Your task to perform on an android device: change notifications settings Image 0: 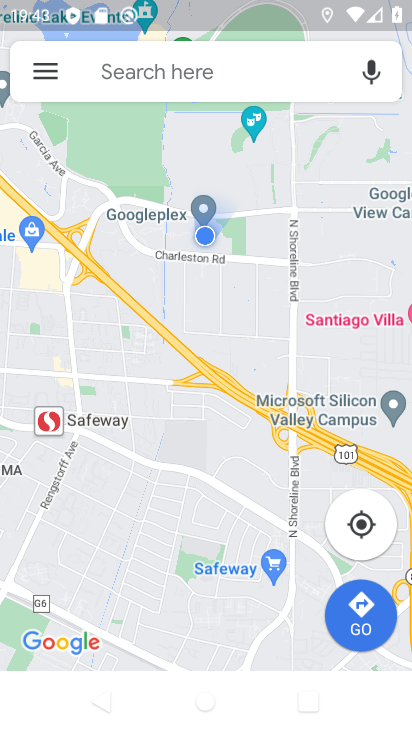
Step 0: press home button
Your task to perform on an android device: change notifications settings Image 1: 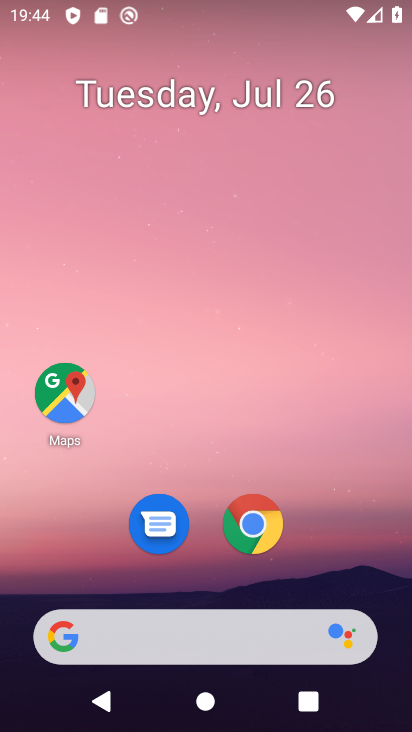
Step 1: drag from (157, 632) to (299, 55)
Your task to perform on an android device: change notifications settings Image 2: 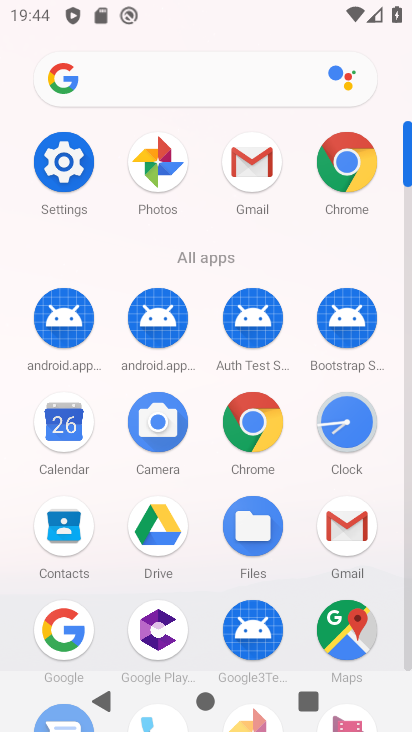
Step 2: click (71, 166)
Your task to perform on an android device: change notifications settings Image 3: 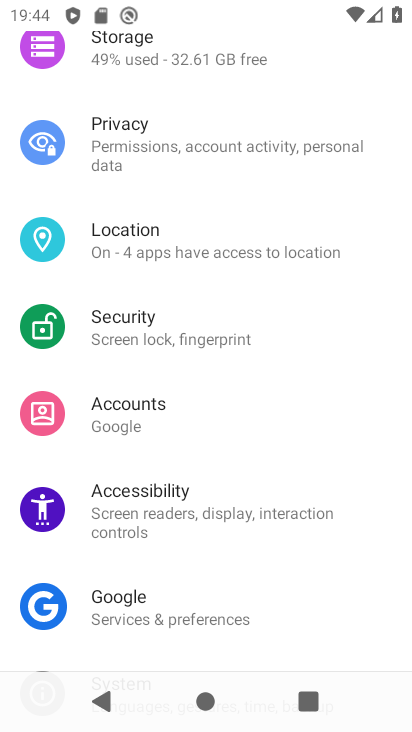
Step 3: drag from (314, 98) to (263, 539)
Your task to perform on an android device: change notifications settings Image 4: 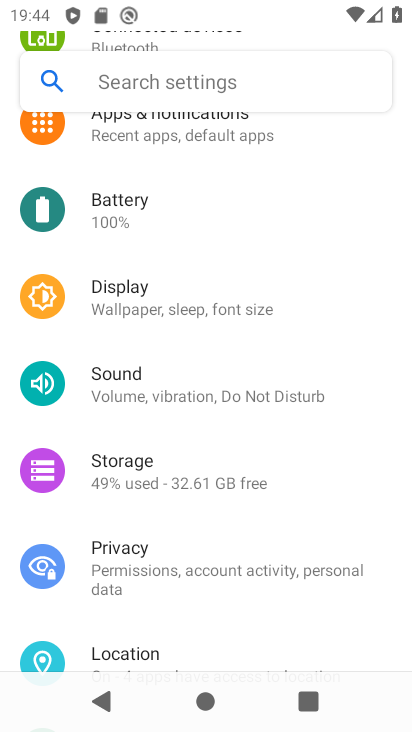
Step 4: drag from (275, 236) to (216, 476)
Your task to perform on an android device: change notifications settings Image 5: 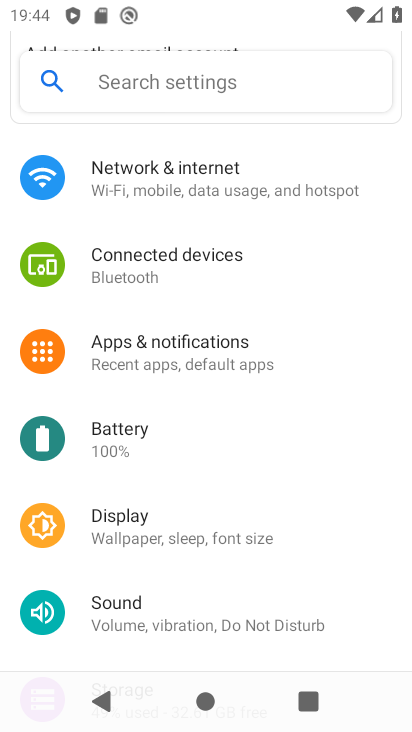
Step 5: click (223, 347)
Your task to perform on an android device: change notifications settings Image 6: 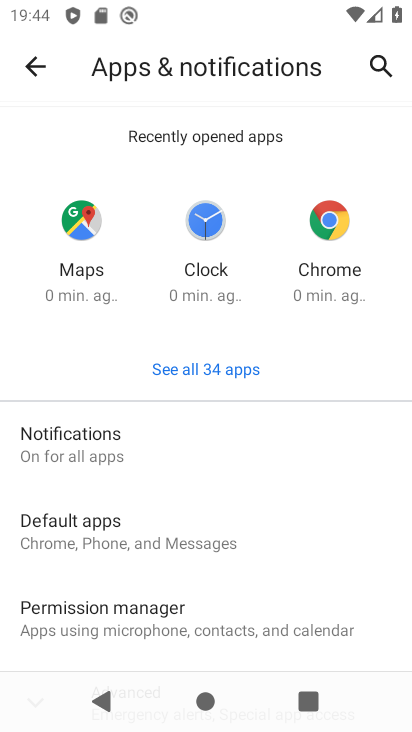
Step 6: click (104, 451)
Your task to perform on an android device: change notifications settings Image 7: 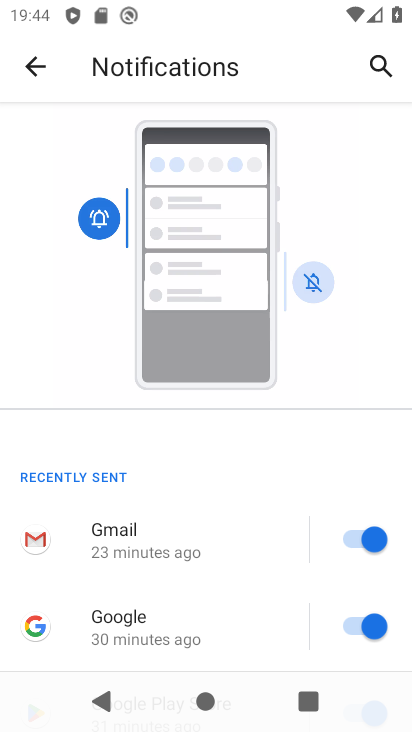
Step 7: task complete